Your task to perform on an android device: clear history in the chrome app Image 0: 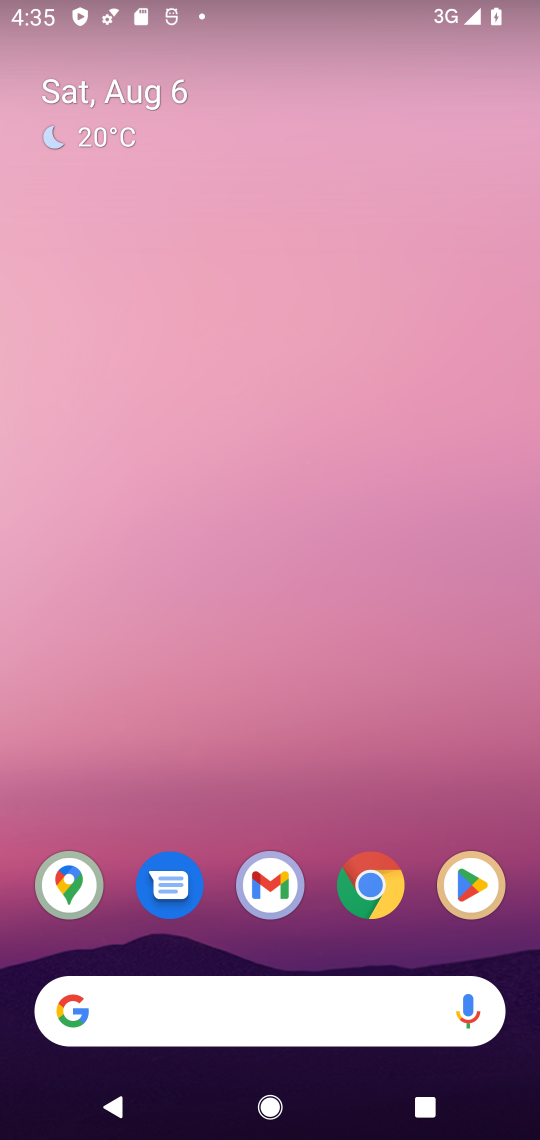
Step 0: drag from (402, 945) to (287, 104)
Your task to perform on an android device: clear history in the chrome app Image 1: 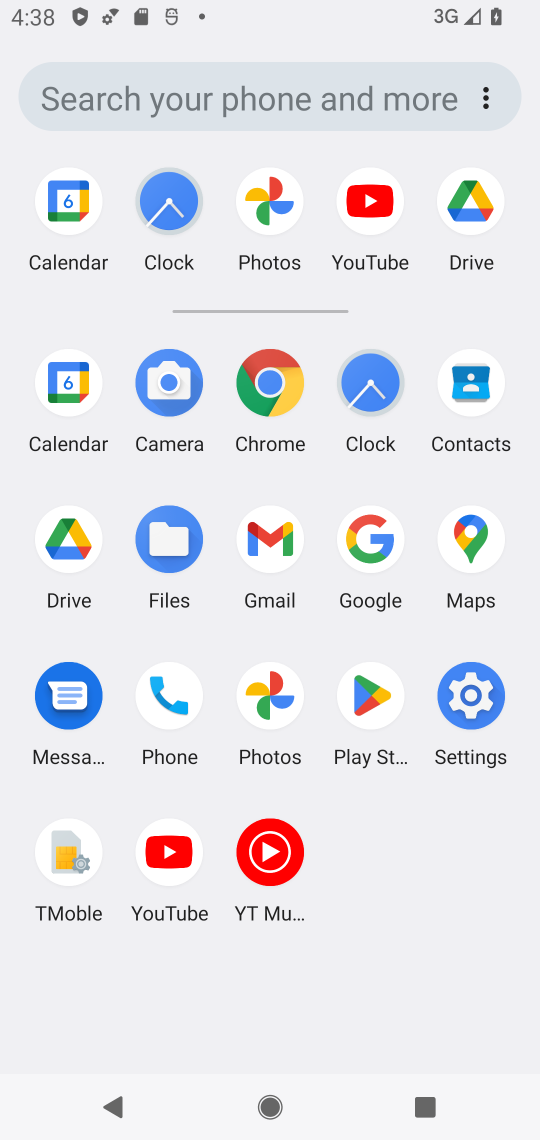
Step 1: click (265, 409)
Your task to perform on an android device: clear history in the chrome app Image 2: 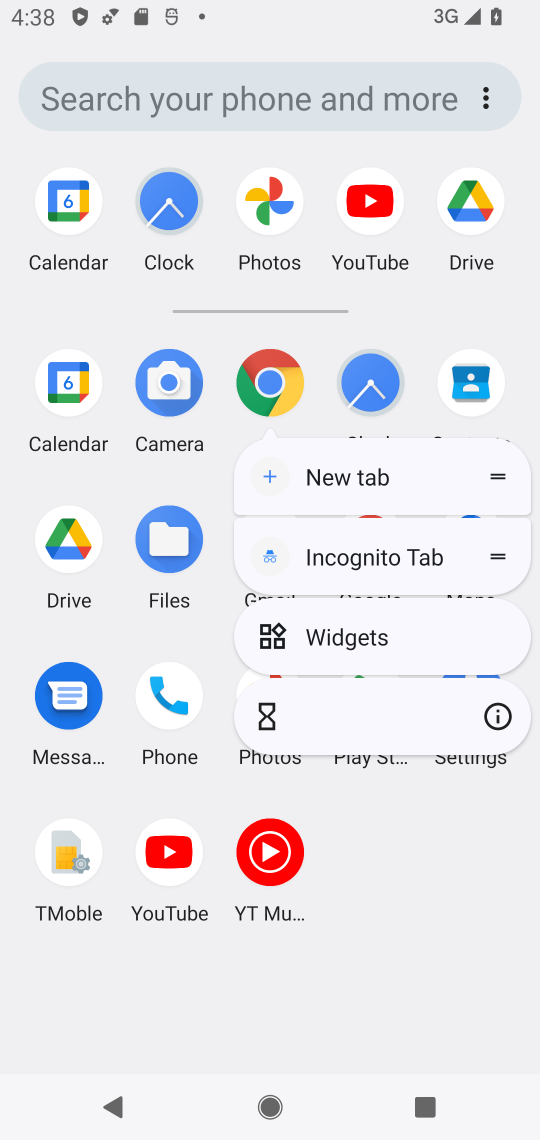
Step 2: click (272, 375)
Your task to perform on an android device: clear history in the chrome app Image 3: 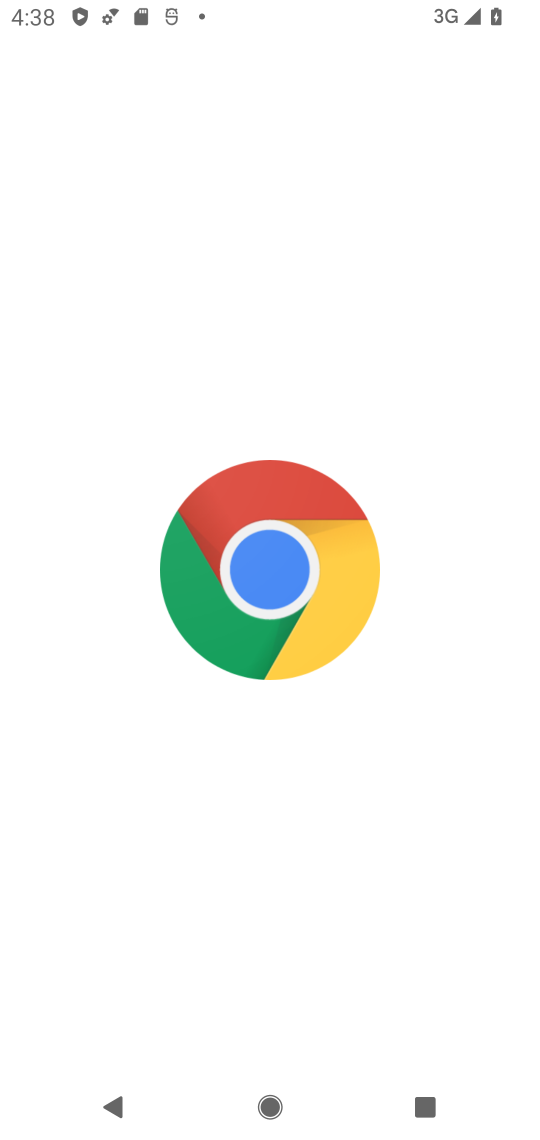
Step 3: click (272, 375)
Your task to perform on an android device: clear history in the chrome app Image 4: 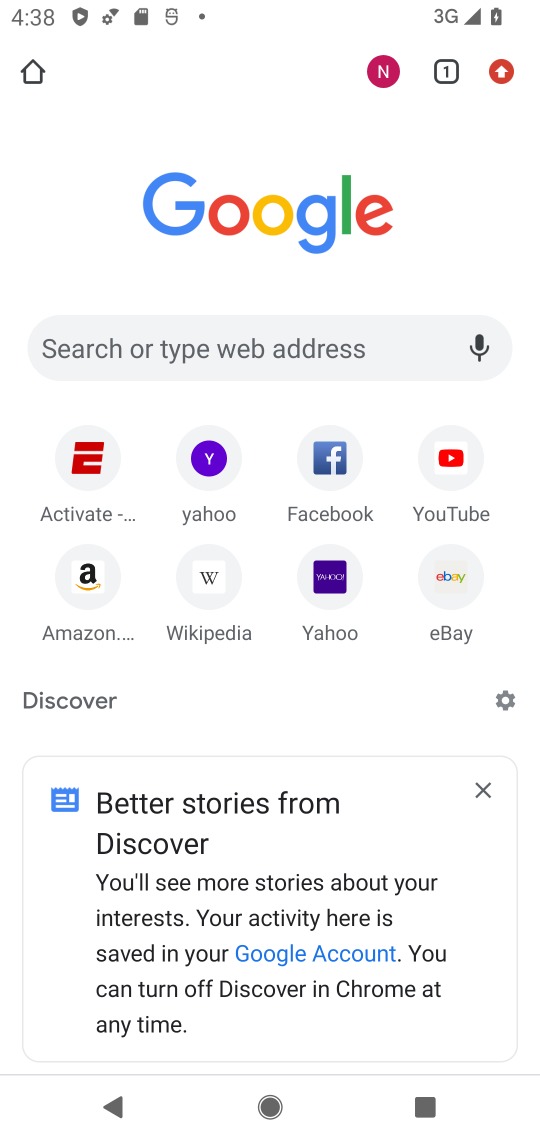
Step 4: click (499, 81)
Your task to perform on an android device: clear history in the chrome app Image 5: 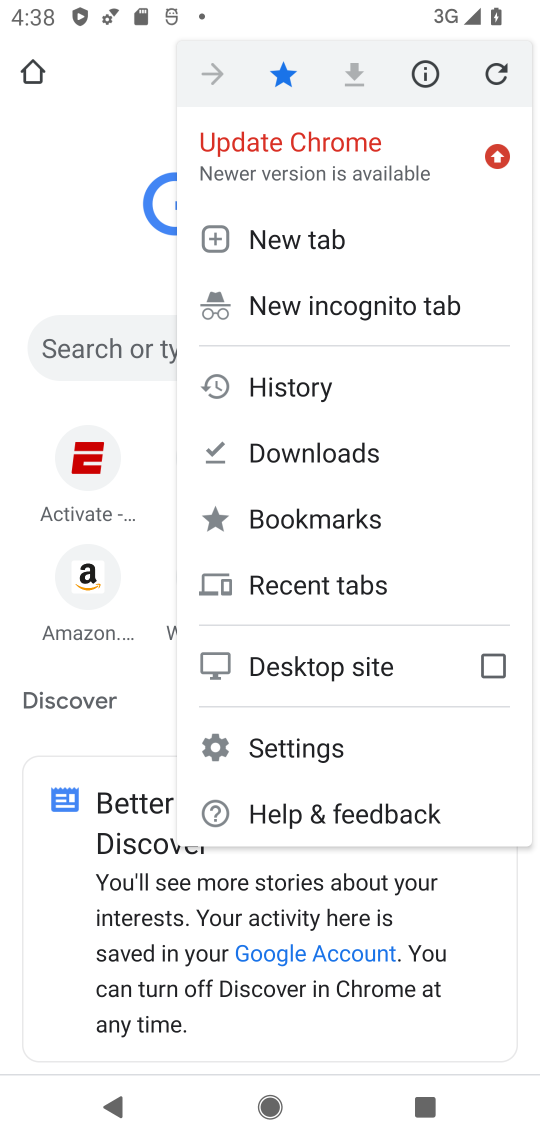
Step 5: click (315, 407)
Your task to perform on an android device: clear history in the chrome app Image 6: 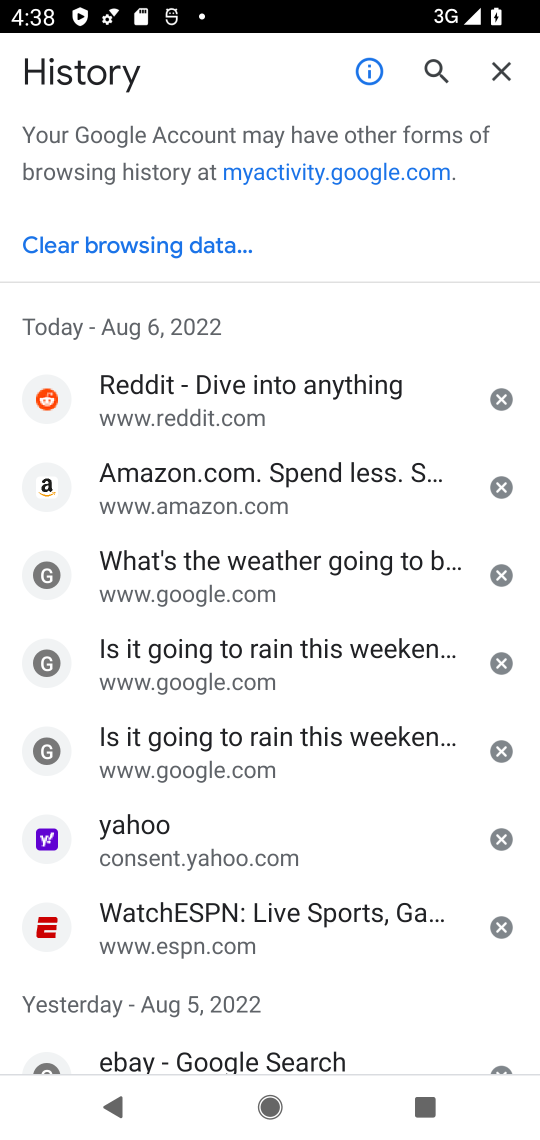
Step 6: click (80, 256)
Your task to perform on an android device: clear history in the chrome app Image 7: 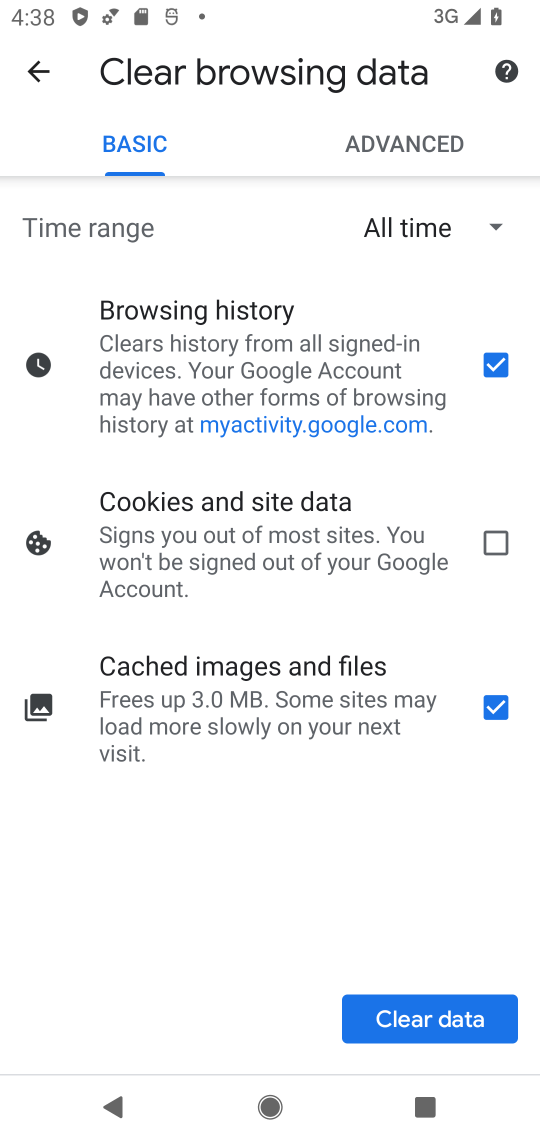
Step 7: click (480, 524)
Your task to perform on an android device: clear history in the chrome app Image 8: 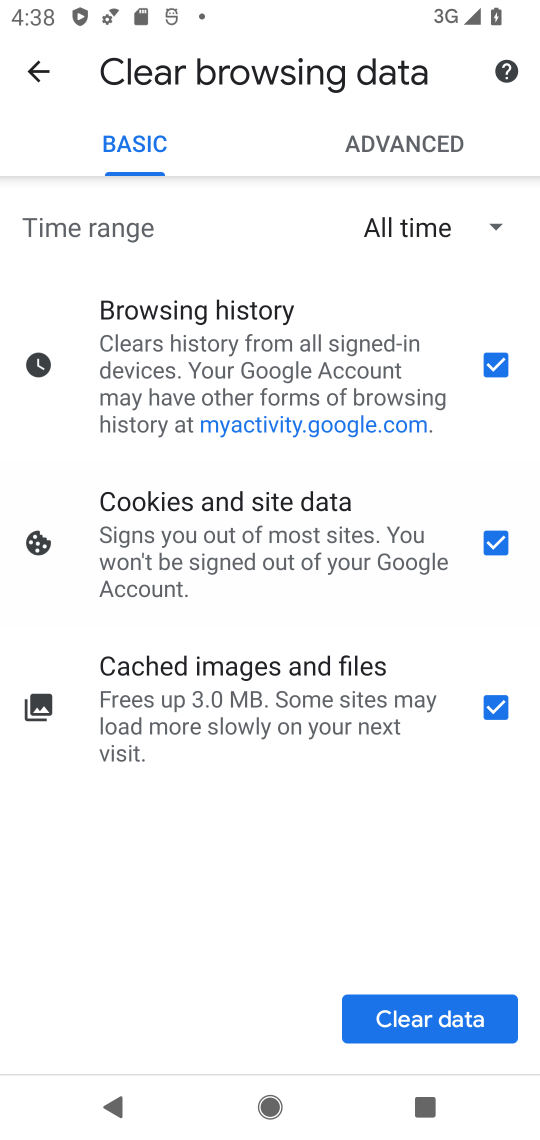
Step 8: click (432, 1013)
Your task to perform on an android device: clear history in the chrome app Image 9: 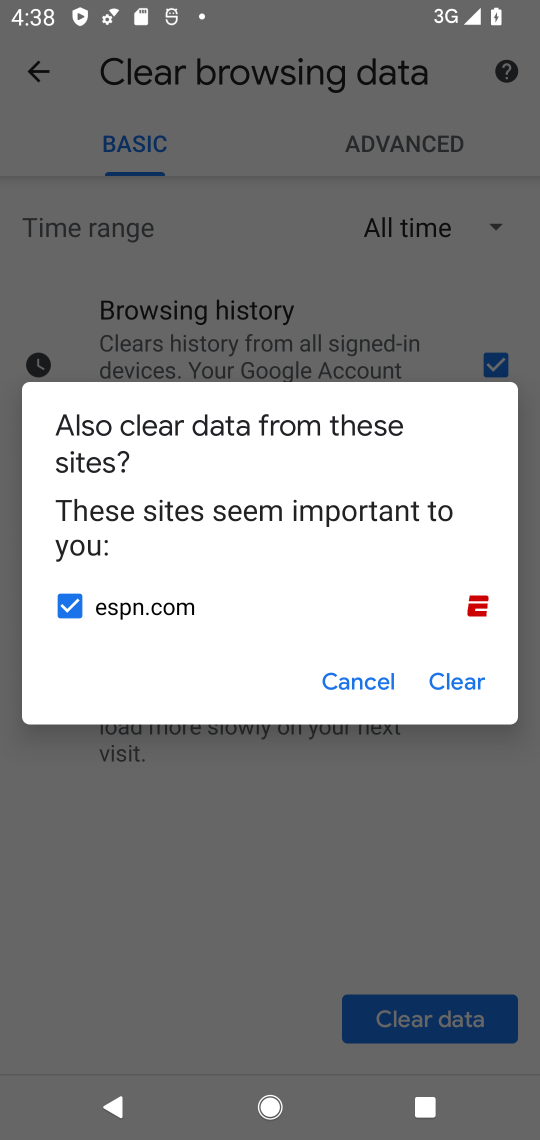
Step 9: click (456, 683)
Your task to perform on an android device: clear history in the chrome app Image 10: 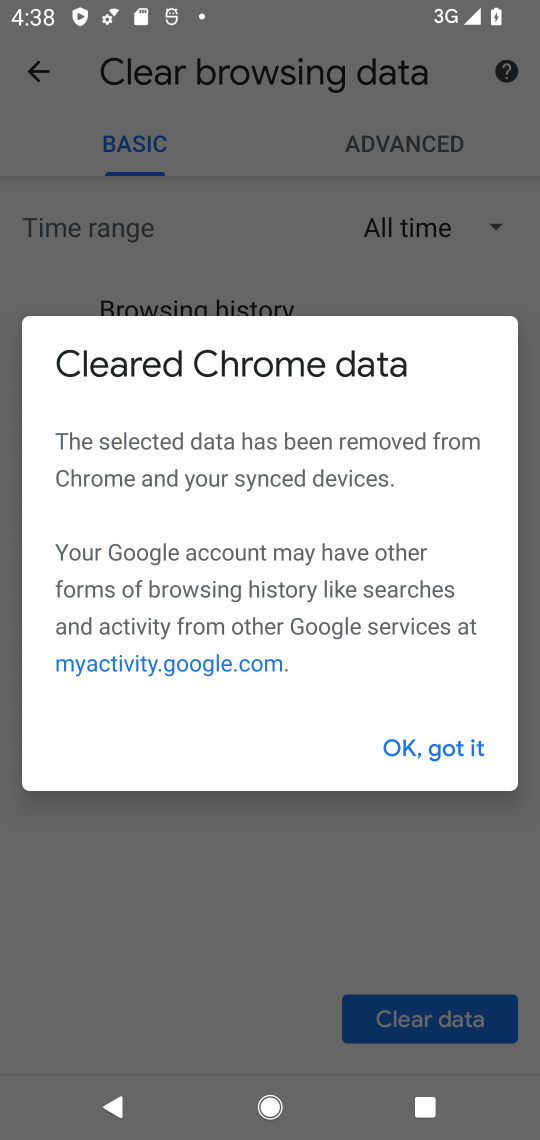
Step 10: click (438, 747)
Your task to perform on an android device: clear history in the chrome app Image 11: 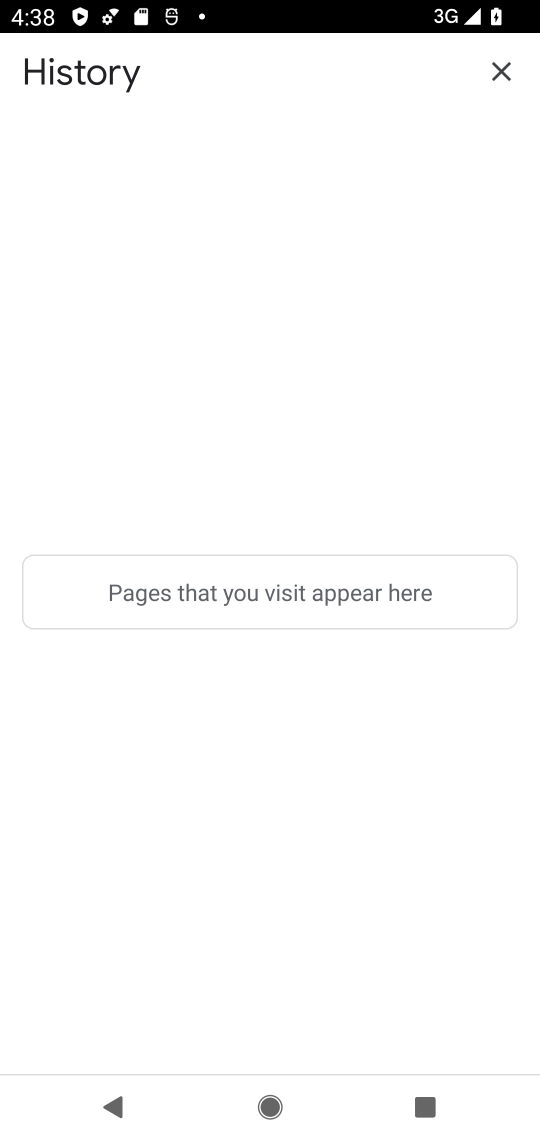
Step 11: task complete